Your task to perform on an android device: Open Reddit.com Image 0: 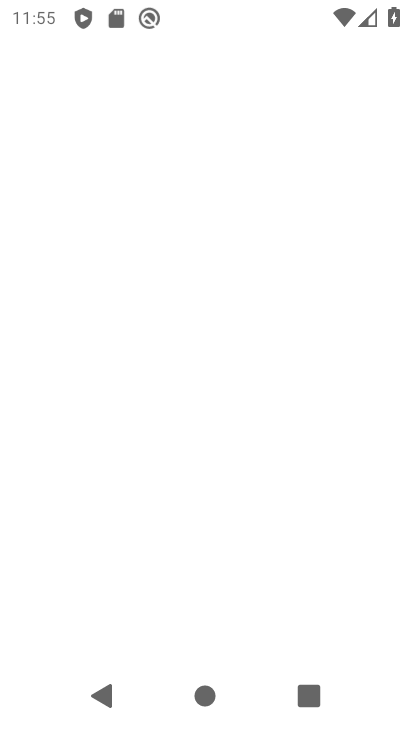
Step 0: drag from (355, 532) to (355, 380)
Your task to perform on an android device: Open Reddit.com Image 1: 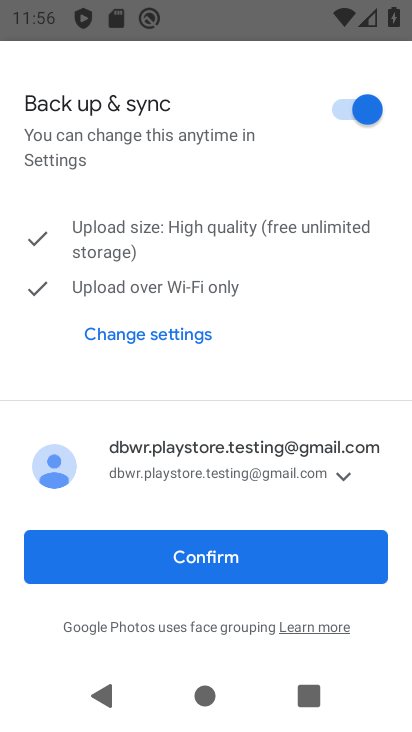
Step 1: press home button
Your task to perform on an android device: Open Reddit.com Image 2: 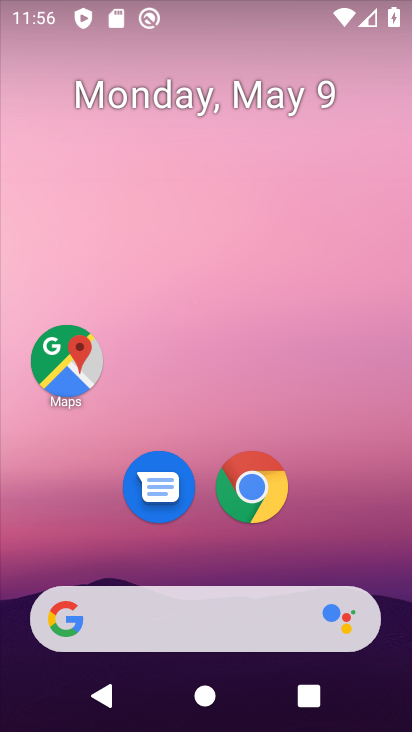
Step 2: drag from (359, 539) to (341, 158)
Your task to perform on an android device: Open Reddit.com Image 3: 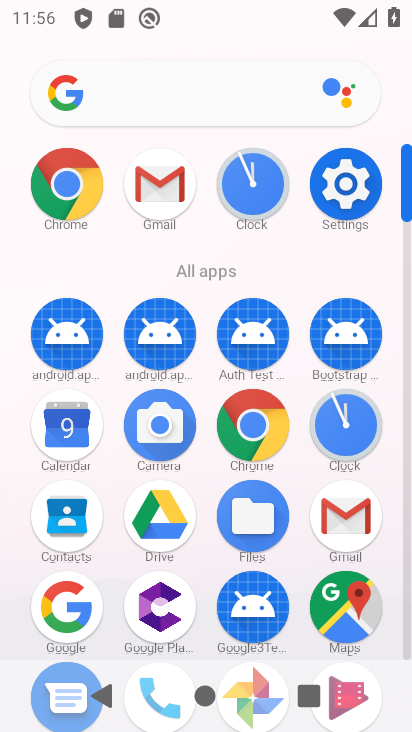
Step 3: click (83, 191)
Your task to perform on an android device: Open Reddit.com Image 4: 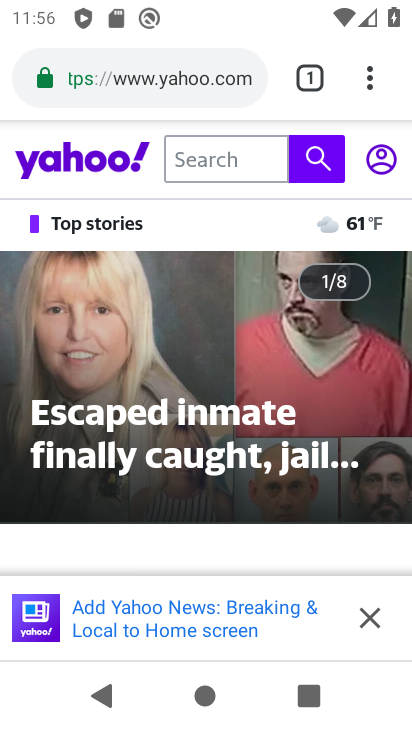
Step 4: click (213, 85)
Your task to perform on an android device: Open Reddit.com Image 5: 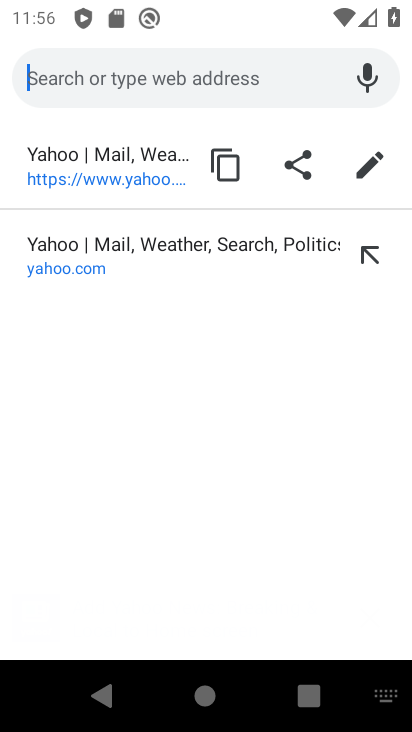
Step 5: type "reddit"
Your task to perform on an android device: Open Reddit.com Image 6: 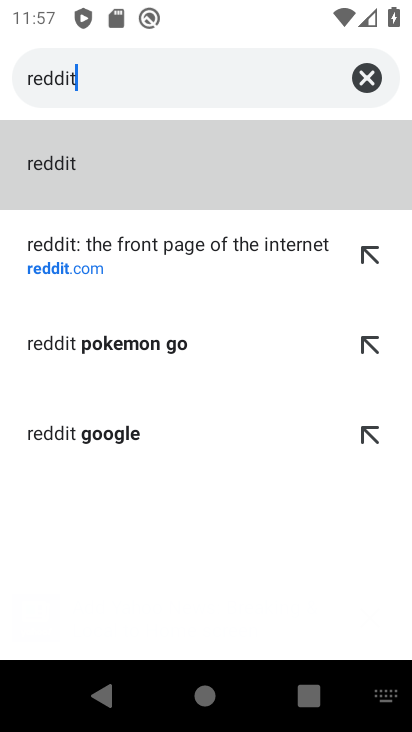
Step 6: click (209, 246)
Your task to perform on an android device: Open Reddit.com Image 7: 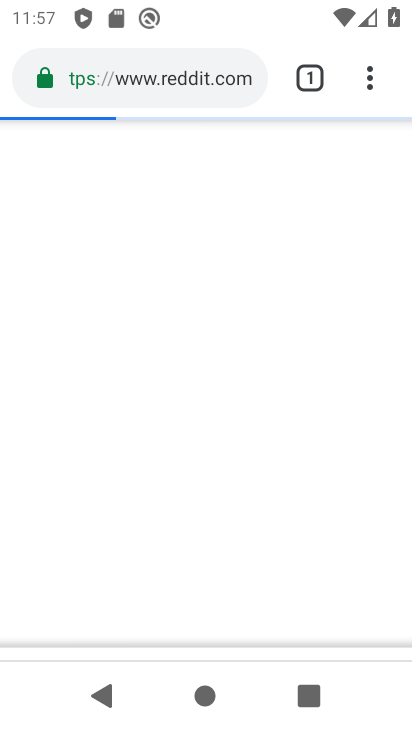
Step 7: task complete